Your task to perform on an android device: View the shopping cart on costco. Add macbook pro 13 inch to the cart on costco, then select checkout. Image 0: 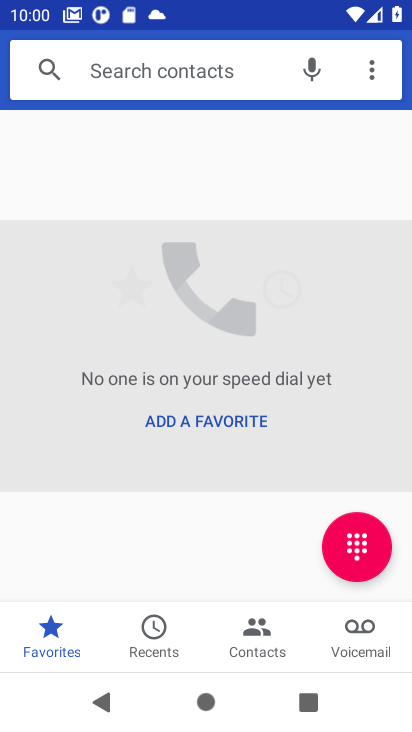
Step 0: press home button
Your task to perform on an android device: View the shopping cart on costco. Add macbook pro 13 inch to the cart on costco, then select checkout. Image 1: 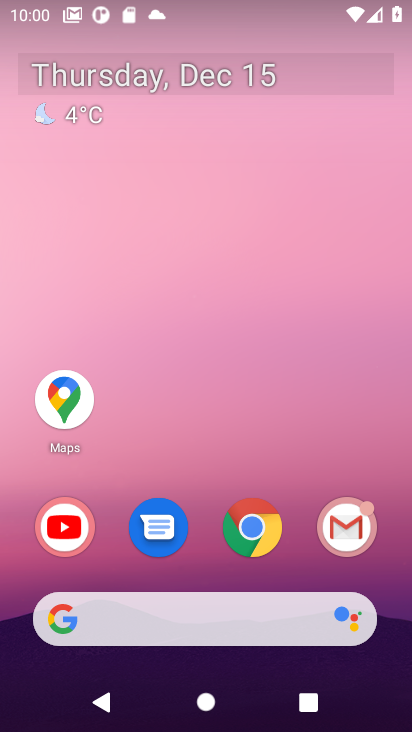
Step 1: click (266, 537)
Your task to perform on an android device: View the shopping cart on costco. Add macbook pro 13 inch to the cart on costco, then select checkout. Image 2: 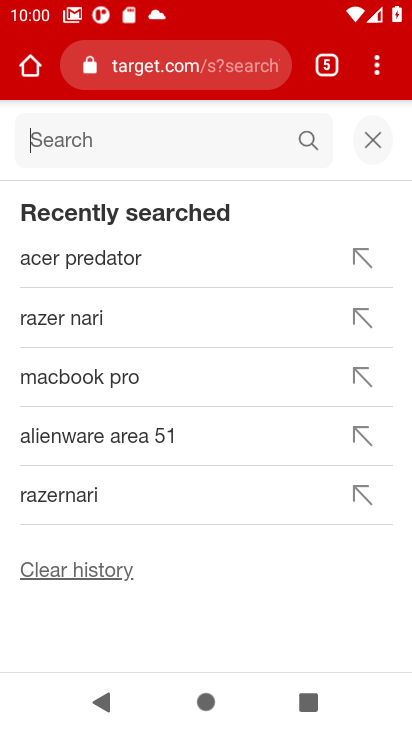
Step 2: type "macbook pro 133"
Your task to perform on an android device: View the shopping cart on costco. Add macbook pro 13 inch to the cart on costco, then select checkout. Image 3: 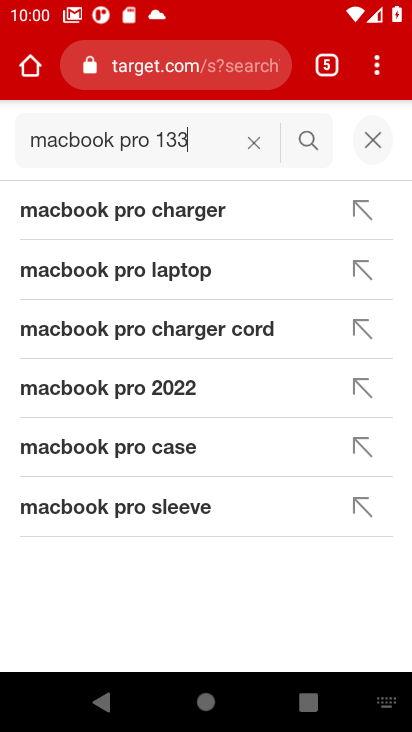
Step 3: click (166, 272)
Your task to perform on an android device: View the shopping cart on costco. Add macbook pro 13 inch to the cart on costco, then select checkout. Image 4: 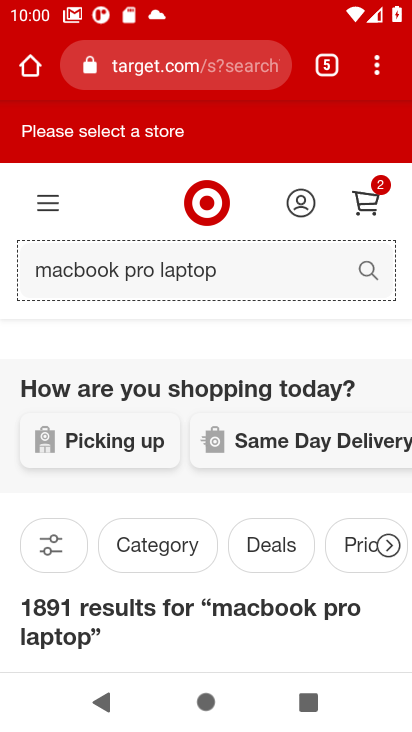
Step 4: drag from (223, 527) to (235, 251)
Your task to perform on an android device: View the shopping cart on costco. Add macbook pro 13 inch to the cart on costco, then select checkout. Image 5: 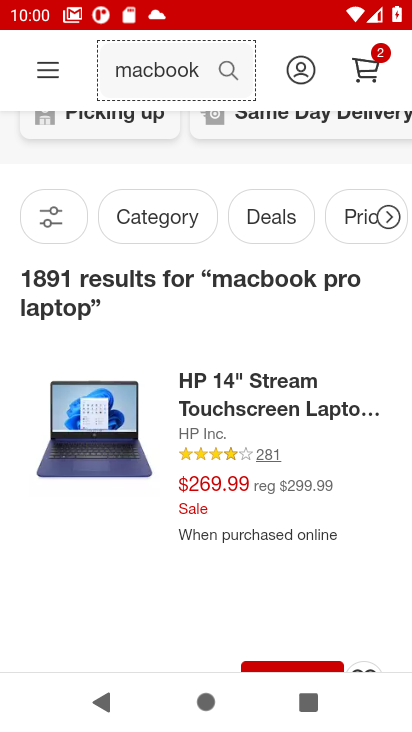
Step 5: click (295, 660)
Your task to perform on an android device: View the shopping cart on costco. Add macbook pro 13 inch to the cart on costco, then select checkout. Image 6: 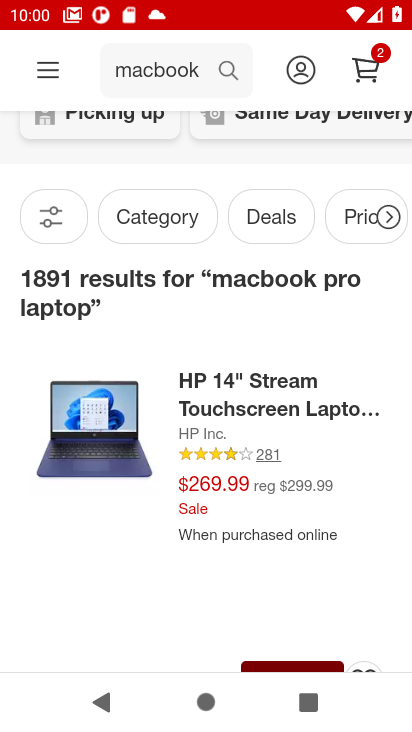
Step 6: task complete